Your task to perform on an android device: Go to notification settings Image 0: 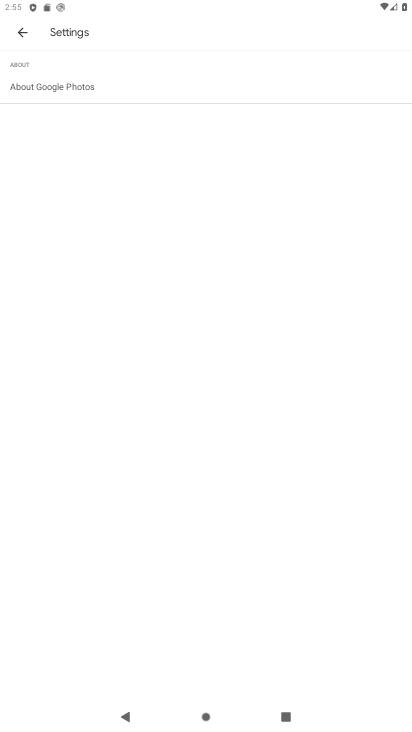
Step 0: press home button
Your task to perform on an android device: Go to notification settings Image 1: 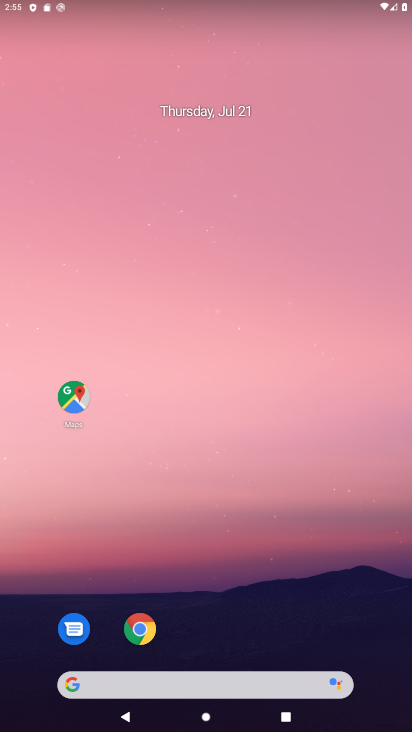
Step 1: drag from (200, 582) to (204, 0)
Your task to perform on an android device: Go to notification settings Image 2: 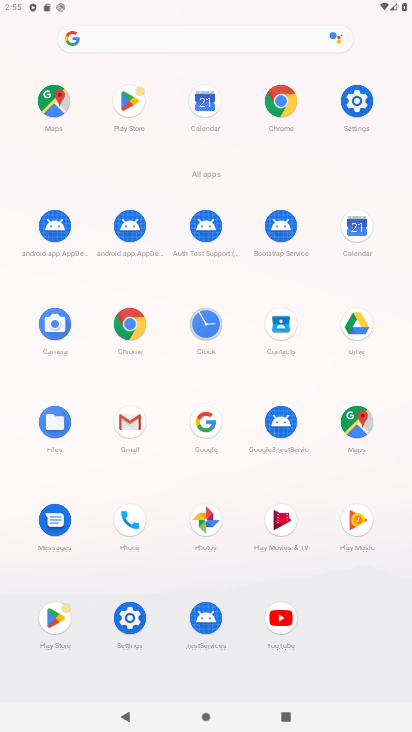
Step 2: click (126, 619)
Your task to perform on an android device: Go to notification settings Image 3: 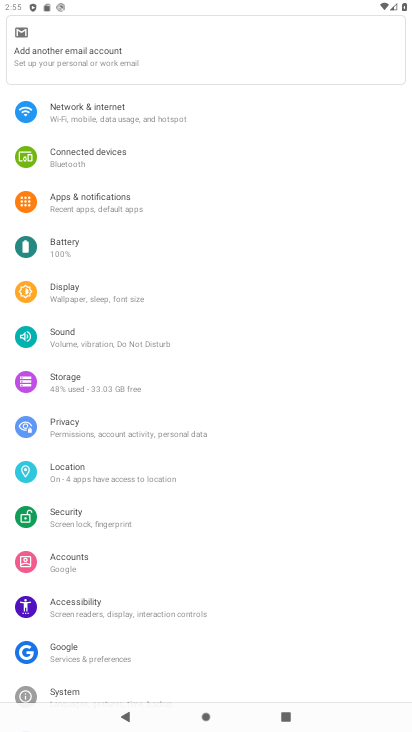
Step 3: click (121, 202)
Your task to perform on an android device: Go to notification settings Image 4: 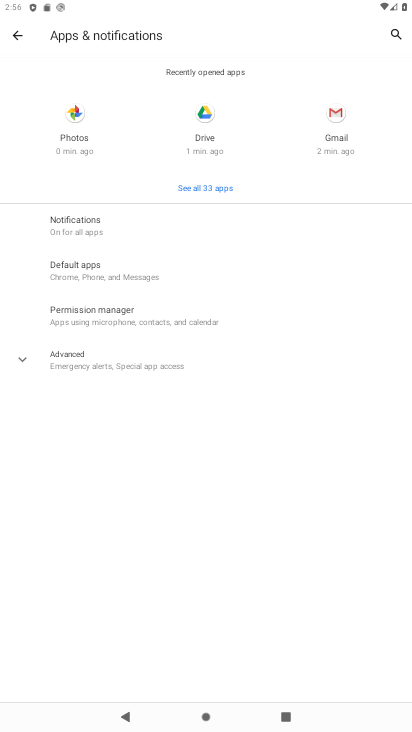
Step 4: click (98, 226)
Your task to perform on an android device: Go to notification settings Image 5: 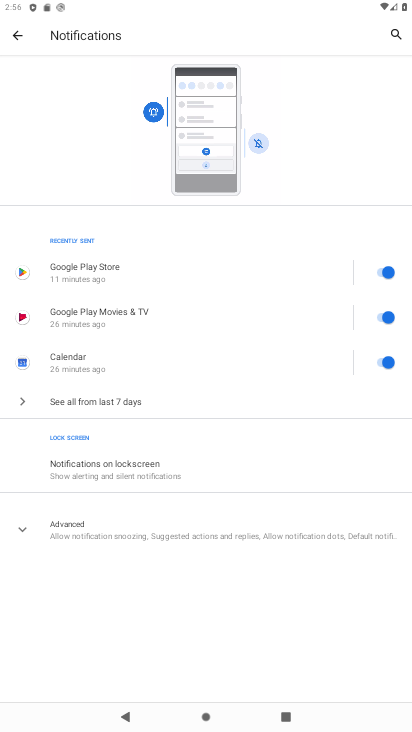
Step 5: task complete